Your task to perform on an android device: Open Google Chrome Image 0: 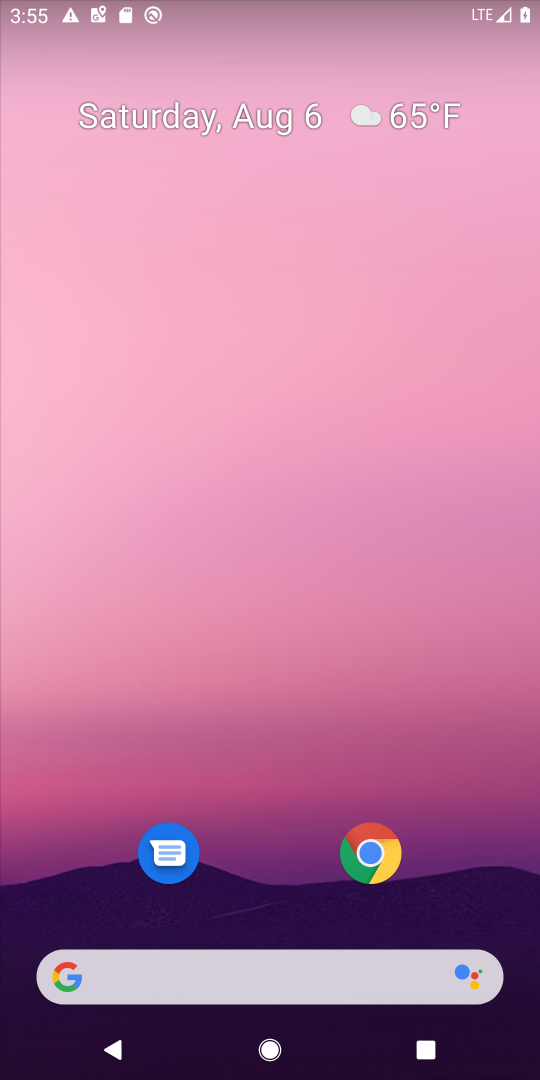
Step 0: click (251, 981)
Your task to perform on an android device: Open Google Chrome Image 1: 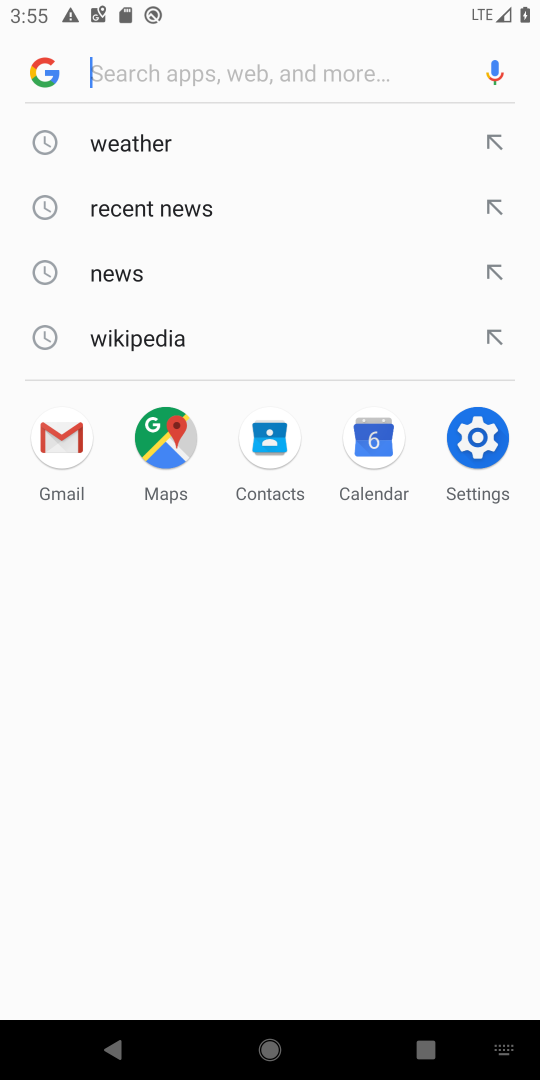
Step 1: press back button
Your task to perform on an android device: Open Google Chrome Image 2: 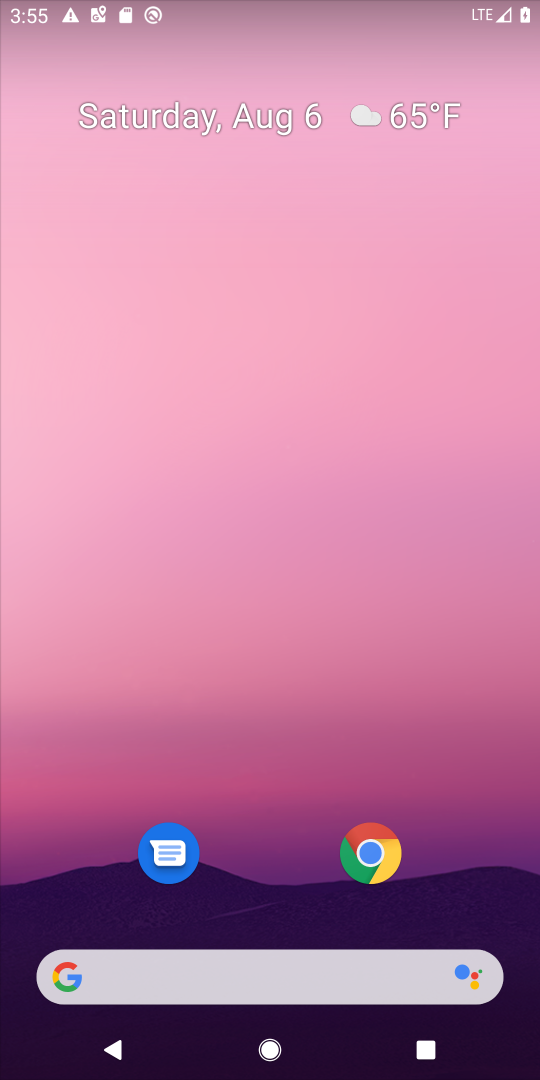
Step 2: click (383, 859)
Your task to perform on an android device: Open Google Chrome Image 3: 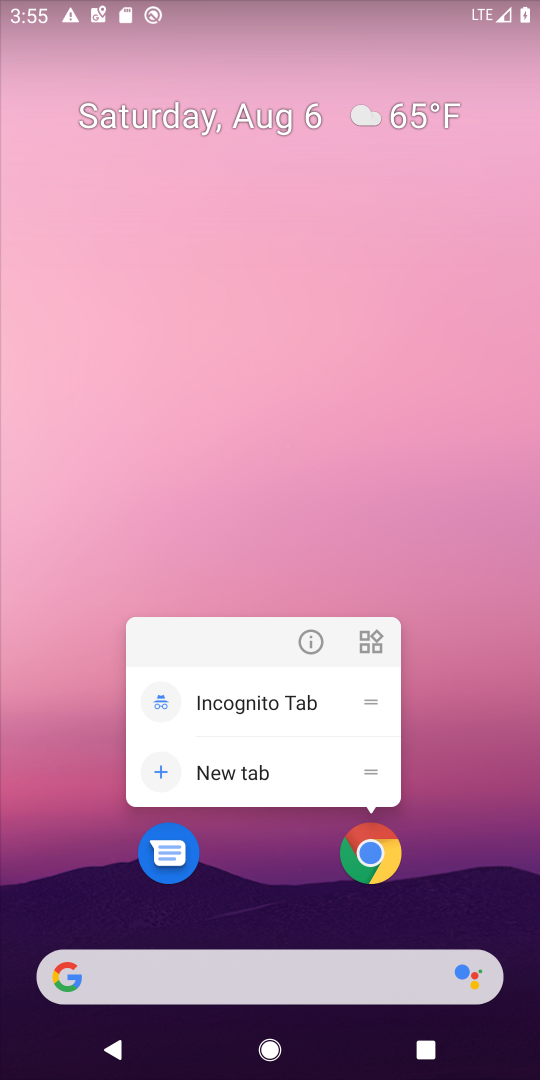
Step 3: click (369, 858)
Your task to perform on an android device: Open Google Chrome Image 4: 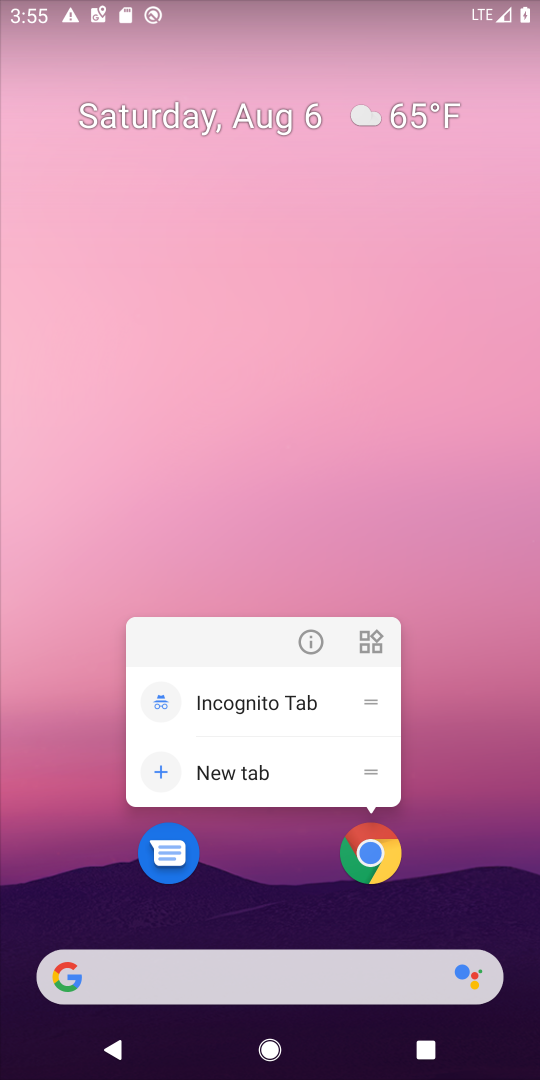
Step 4: click (370, 857)
Your task to perform on an android device: Open Google Chrome Image 5: 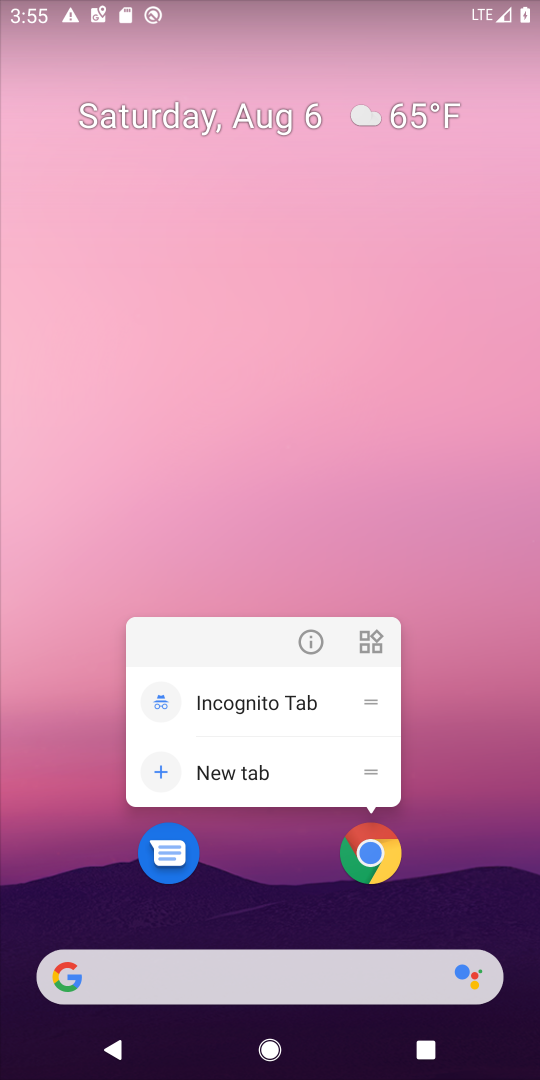
Step 5: click (370, 857)
Your task to perform on an android device: Open Google Chrome Image 6: 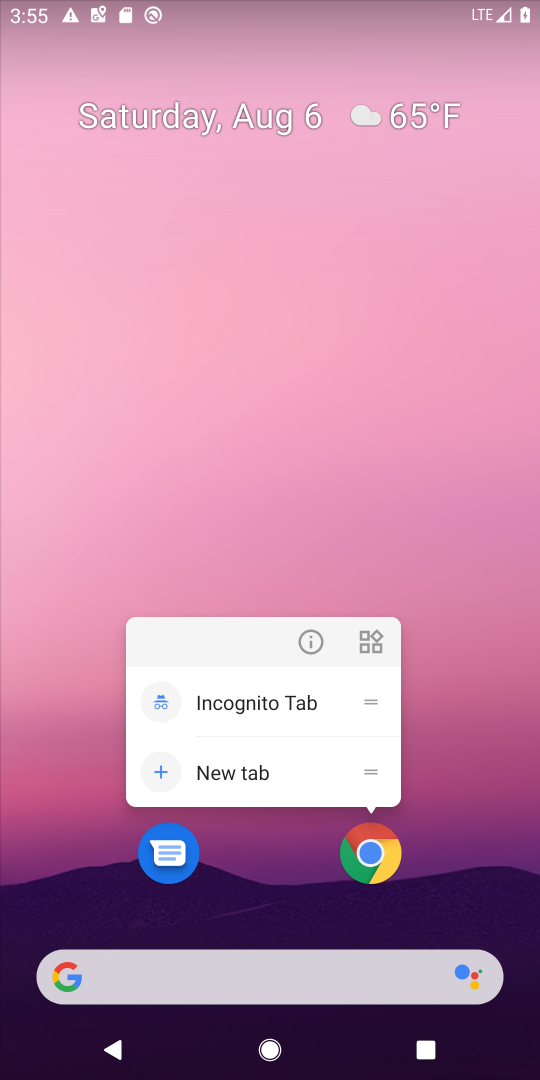
Step 6: click (374, 854)
Your task to perform on an android device: Open Google Chrome Image 7: 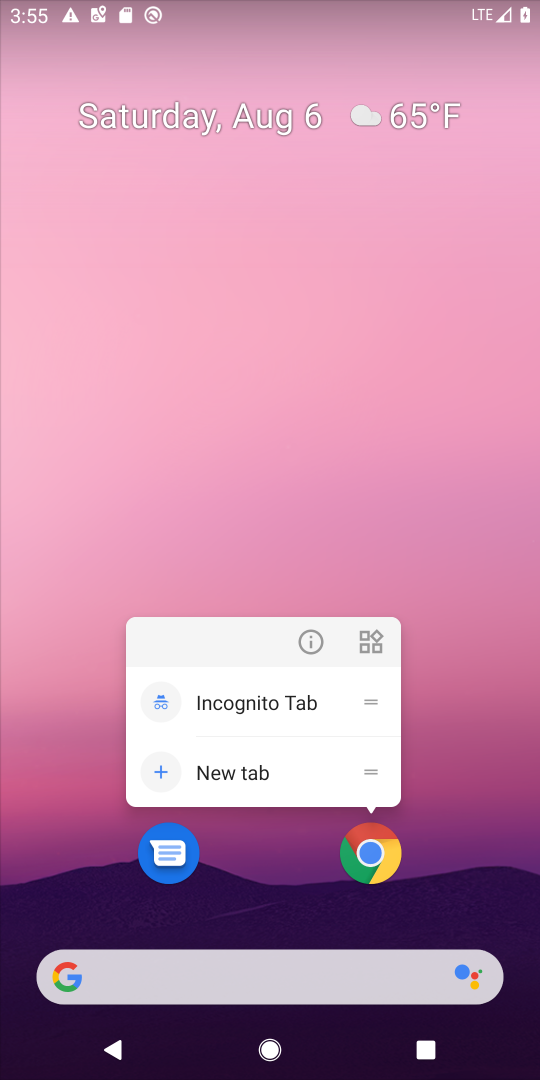
Step 7: click (373, 840)
Your task to perform on an android device: Open Google Chrome Image 8: 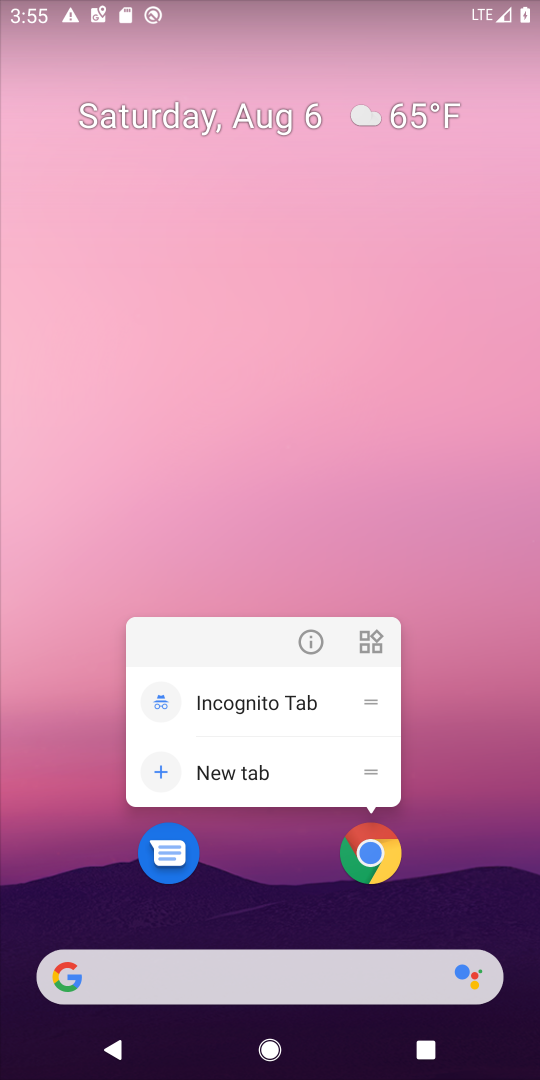
Step 8: click (373, 847)
Your task to perform on an android device: Open Google Chrome Image 9: 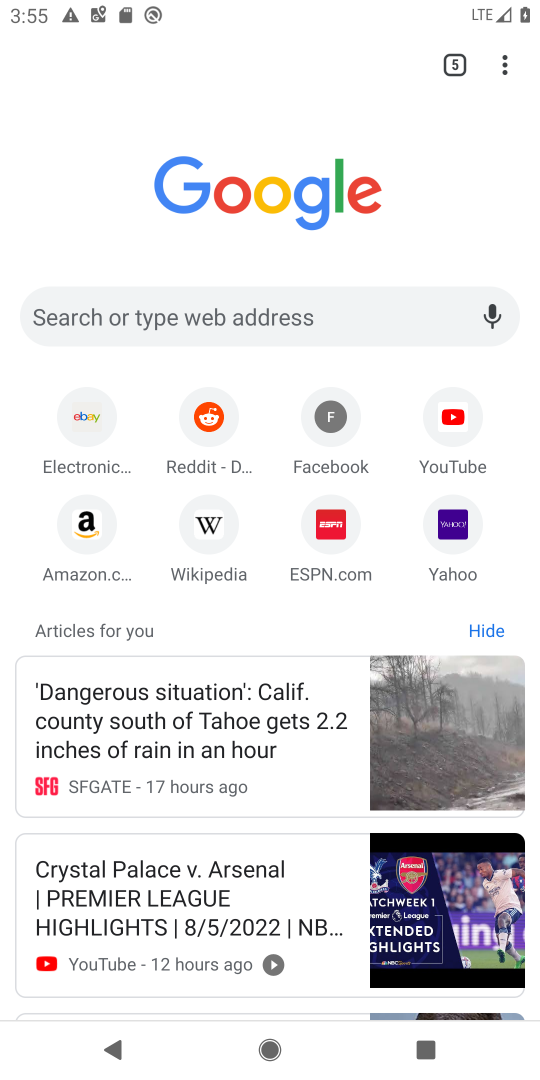
Step 9: task complete